Your task to perform on an android device: Open privacy settings Image 0: 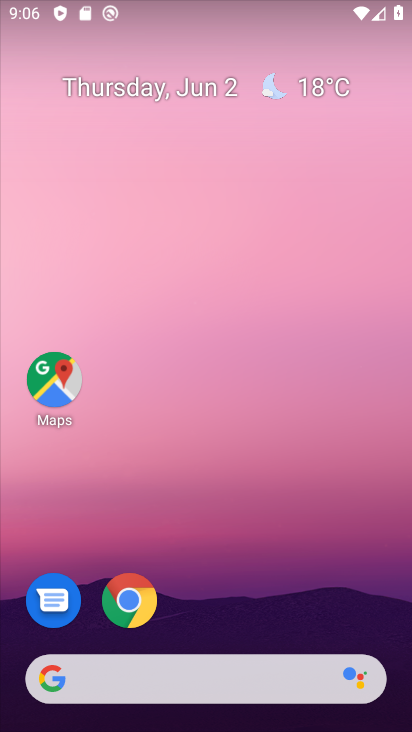
Step 0: drag from (243, 600) to (263, 87)
Your task to perform on an android device: Open privacy settings Image 1: 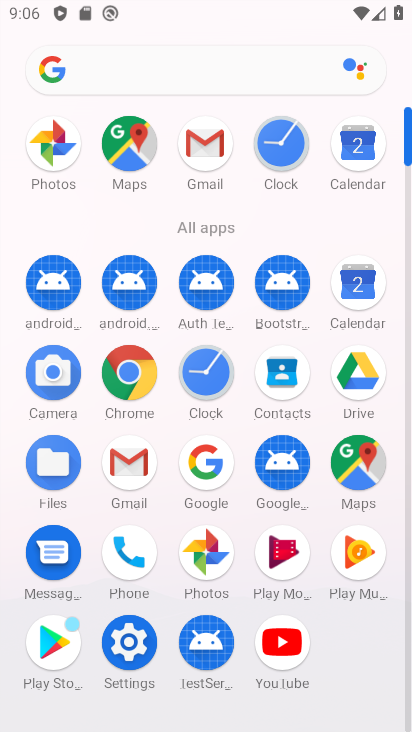
Step 1: click (120, 655)
Your task to perform on an android device: Open privacy settings Image 2: 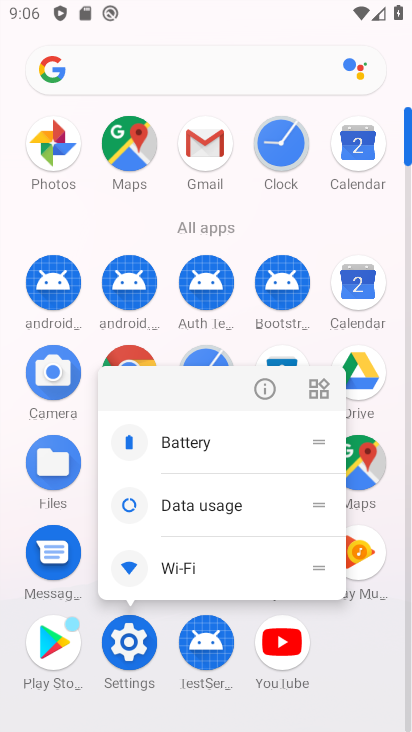
Step 2: click (128, 638)
Your task to perform on an android device: Open privacy settings Image 3: 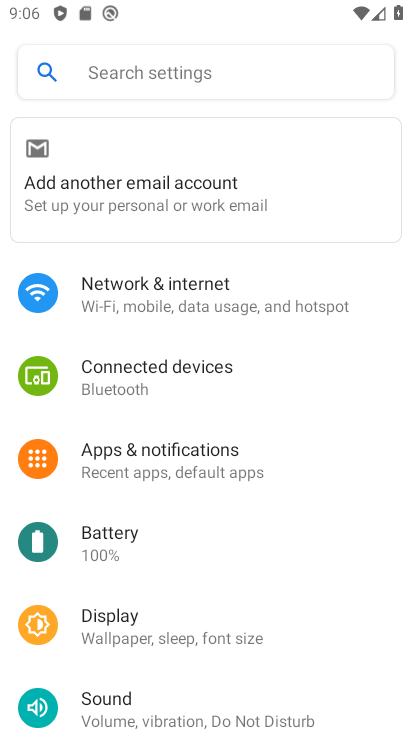
Step 3: drag from (178, 655) to (197, 249)
Your task to perform on an android device: Open privacy settings Image 4: 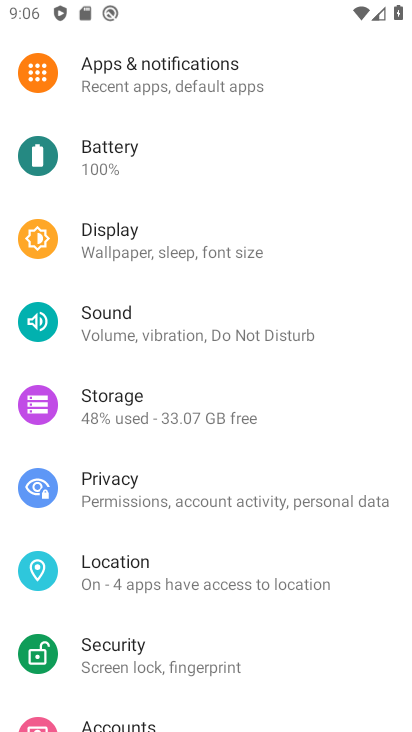
Step 4: click (133, 490)
Your task to perform on an android device: Open privacy settings Image 5: 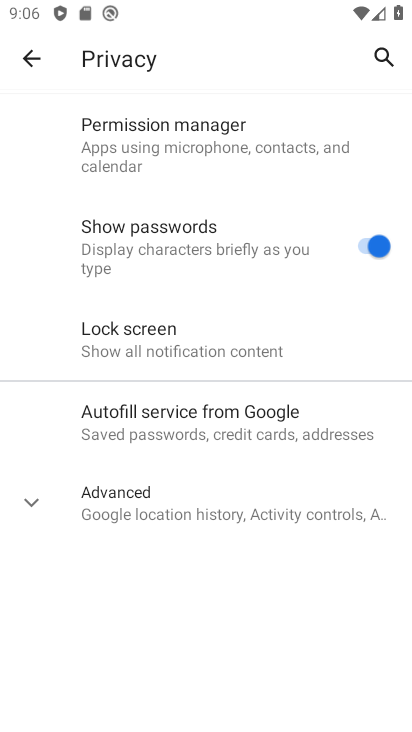
Step 5: task complete